Your task to perform on an android device: Open ESPN.com Image 0: 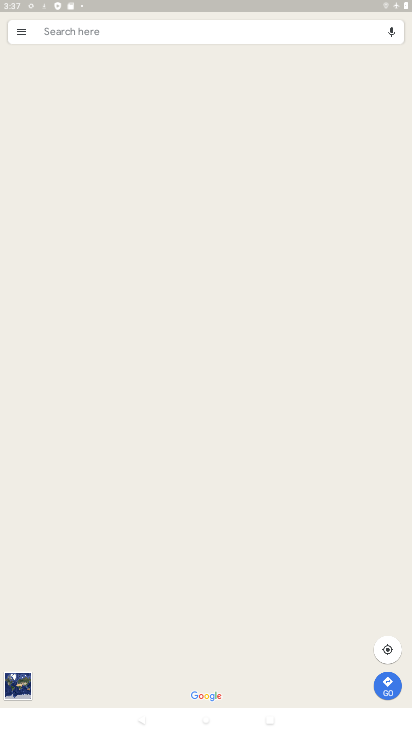
Step 0: press home button
Your task to perform on an android device: Open ESPN.com Image 1: 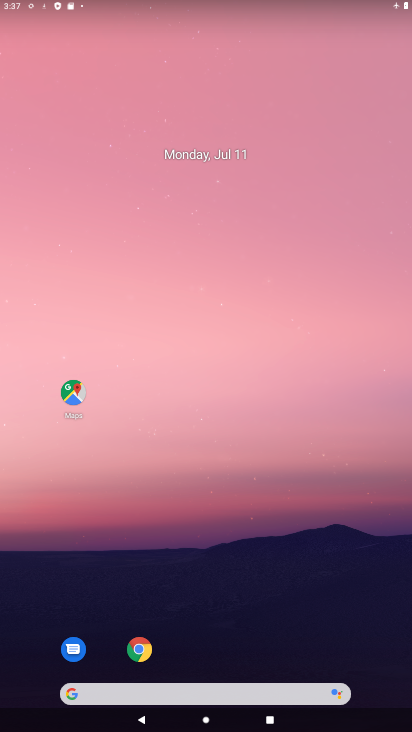
Step 1: click (142, 659)
Your task to perform on an android device: Open ESPN.com Image 2: 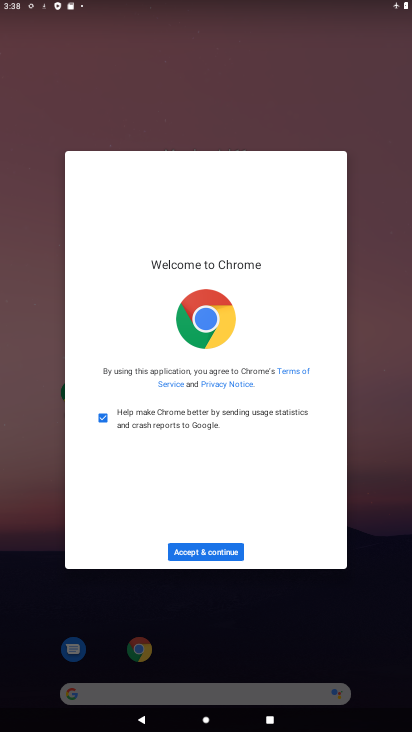
Step 2: click (224, 557)
Your task to perform on an android device: Open ESPN.com Image 3: 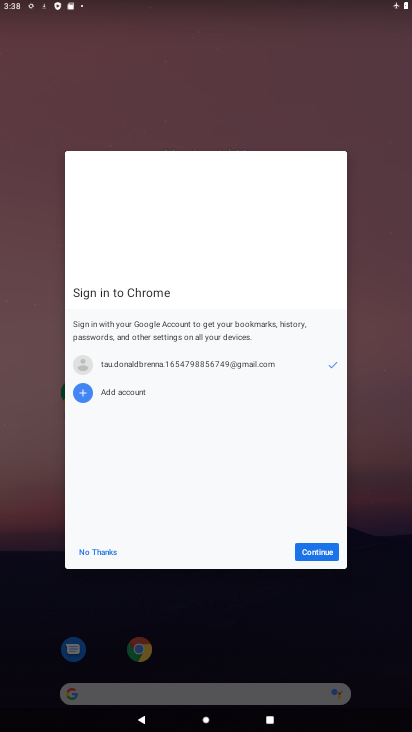
Step 3: click (314, 554)
Your task to perform on an android device: Open ESPN.com Image 4: 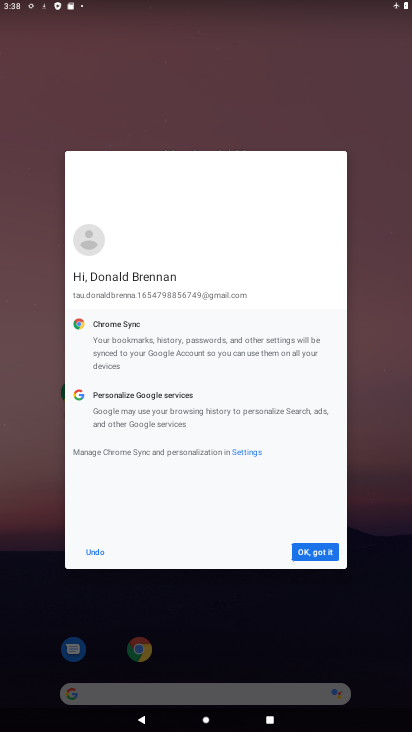
Step 4: click (314, 555)
Your task to perform on an android device: Open ESPN.com Image 5: 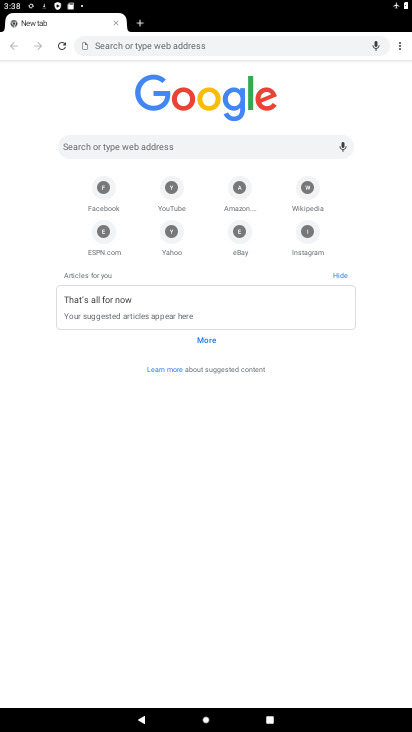
Step 5: click (100, 232)
Your task to perform on an android device: Open ESPN.com Image 6: 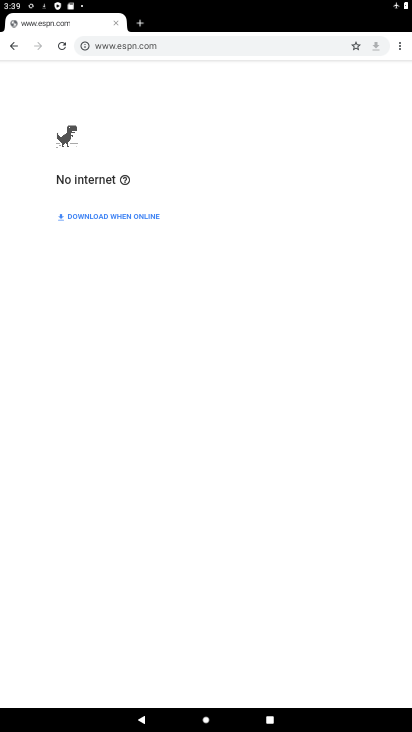
Step 6: task complete